Your task to perform on an android device: Open Youtube and go to "Your channel" Image 0: 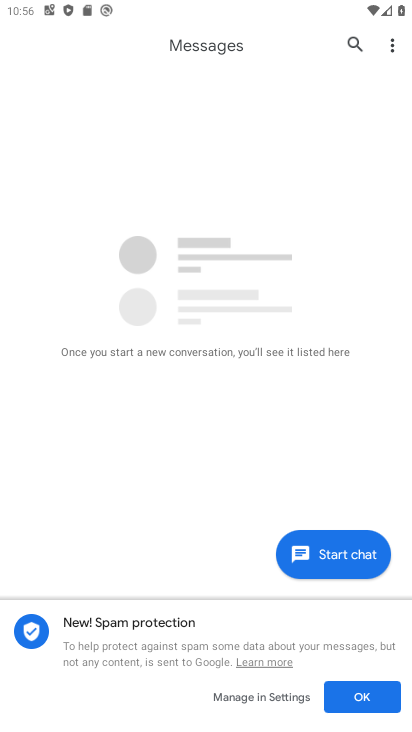
Step 0: press home button
Your task to perform on an android device: Open Youtube and go to "Your channel" Image 1: 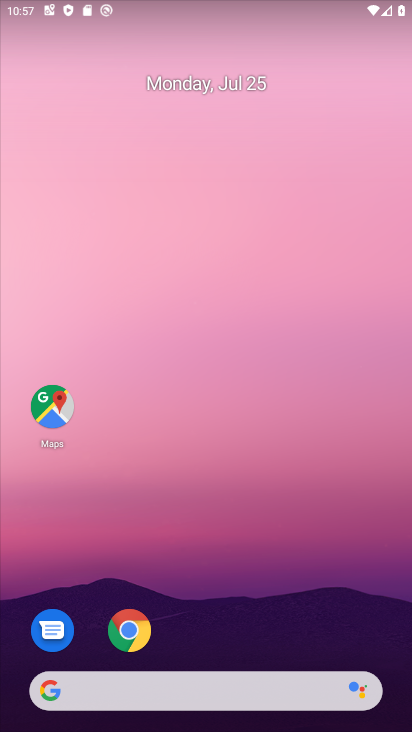
Step 1: drag from (341, 611) to (365, 116)
Your task to perform on an android device: Open Youtube and go to "Your channel" Image 2: 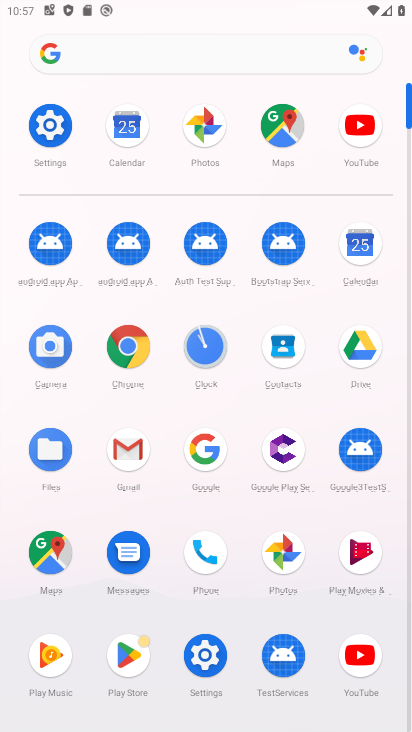
Step 2: click (356, 129)
Your task to perform on an android device: Open Youtube and go to "Your channel" Image 3: 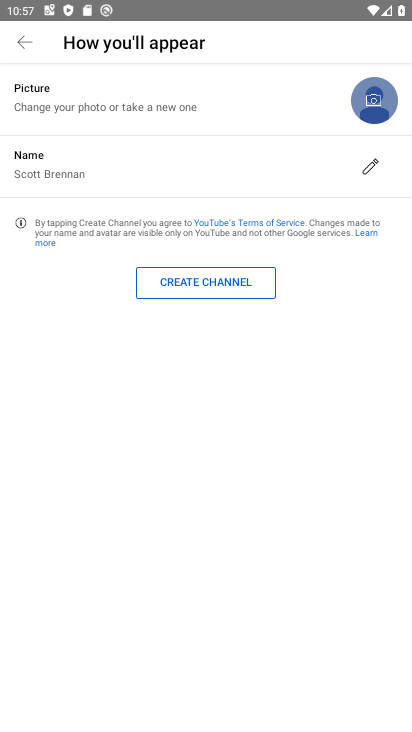
Step 3: task complete